Your task to perform on an android device: Go to Yahoo.com Image 0: 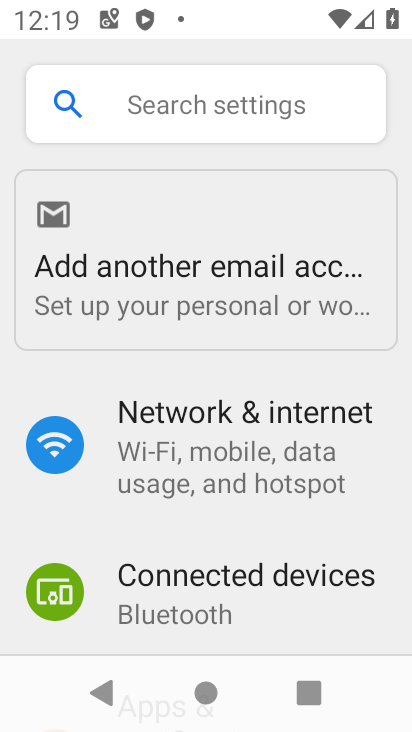
Step 0: press home button
Your task to perform on an android device: Go to Yahoo.com Image 1: 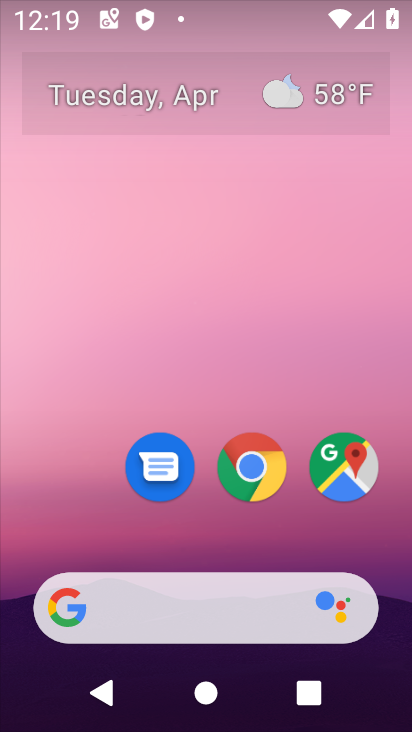
Step 1: click (255, 456)
Your task to perform on an android device: Go to Yahoo.com Image 2: 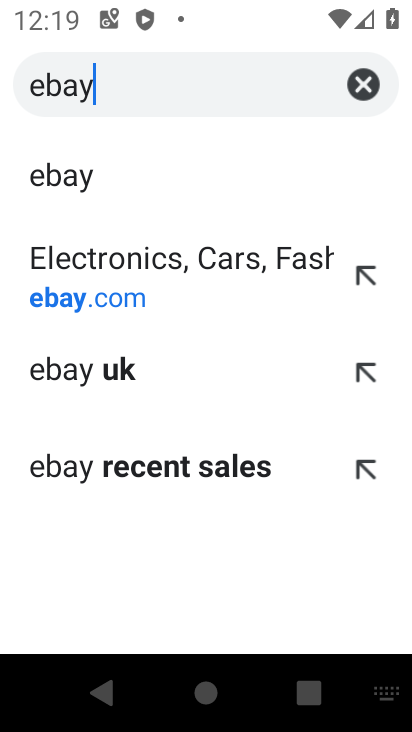
Step 2: click (366, 86)
Your task to perform on an android device: Go to Yahoo.com Image 3: 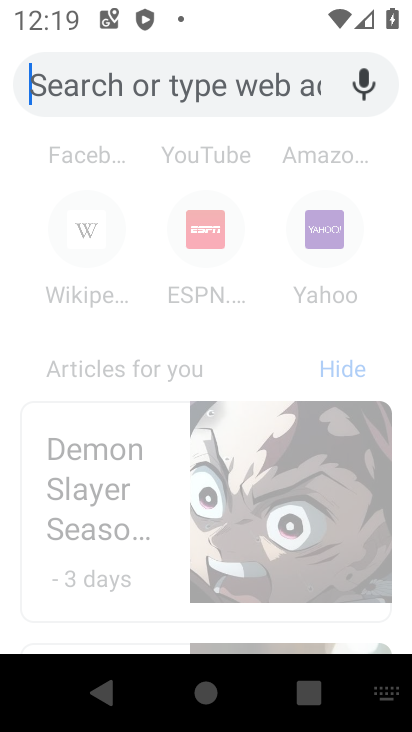
Step 3: press back button
Your task to perform on an android device: Go to Yahoo.com Image 4: 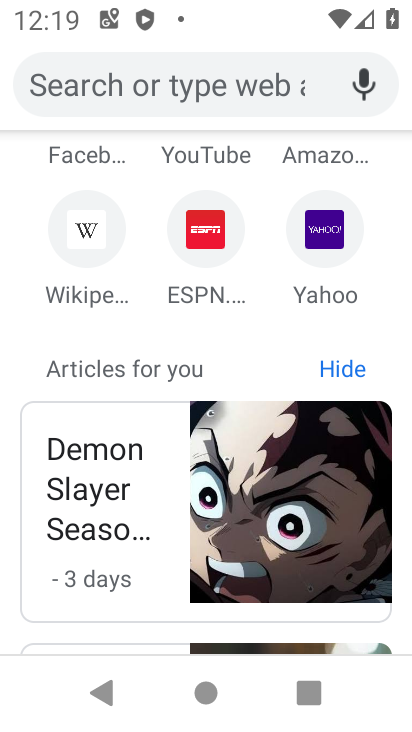
Step 4: click (329, 220)
Your task to perform on an android device: Go to Yahoo.com Image 5: 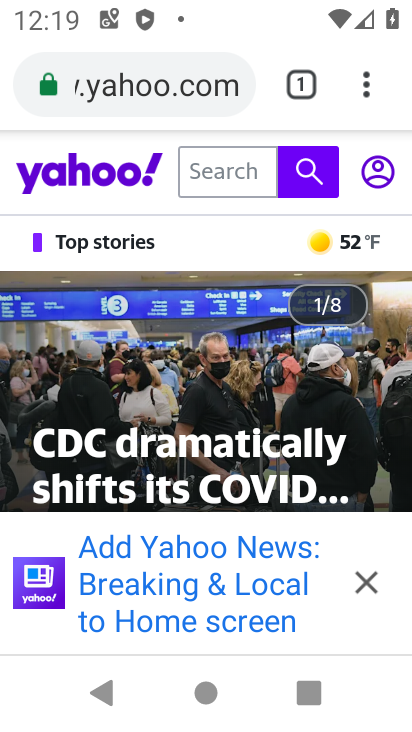
Step 5: task complete